Your task to perform on an android device: Search for corsair k70 on newegg.com, select the first entry, add it to the cart, then select checkout. Image 0: 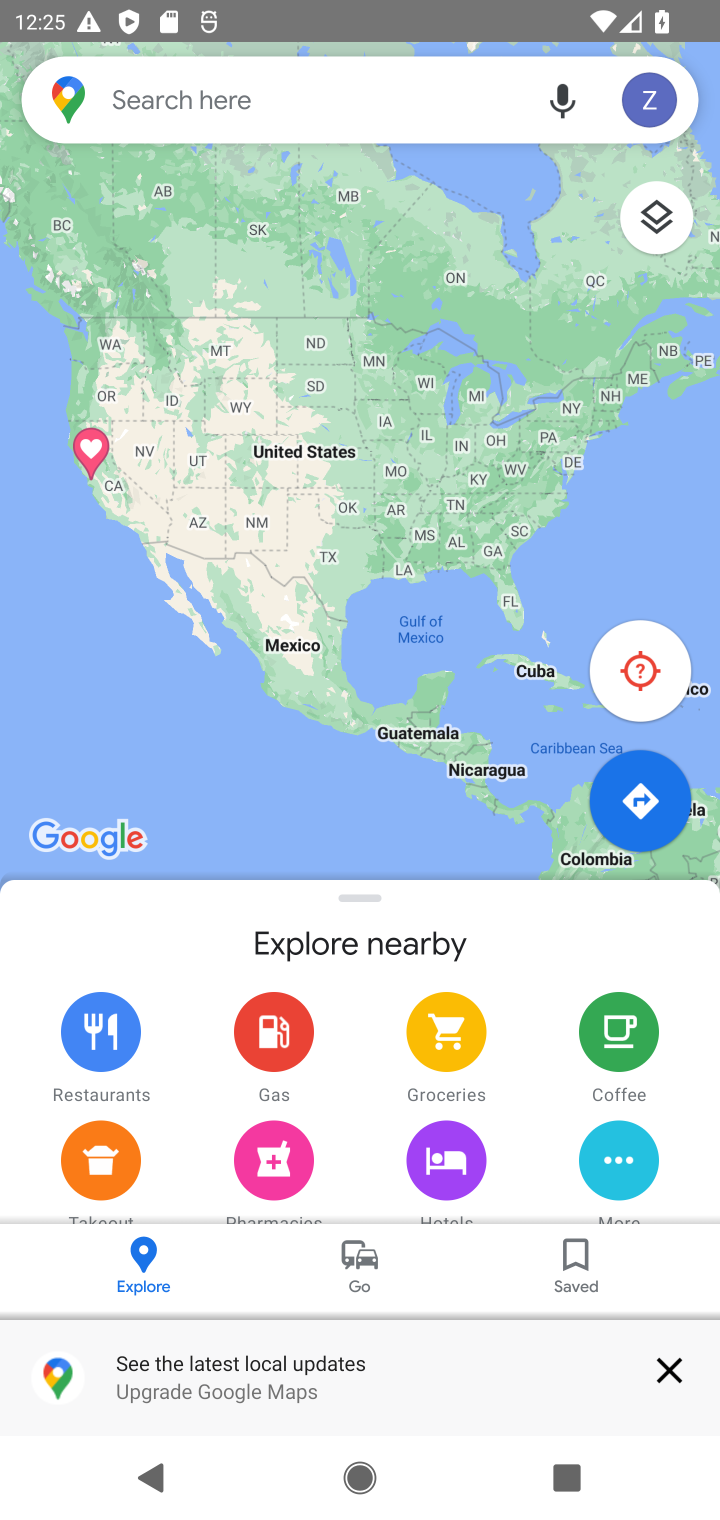
Step 0: press home button
Your task to perform on an android device: Search for corsair k70 on newegg.com, select the first entry, add it to the cart, then select checkout. Image 1: 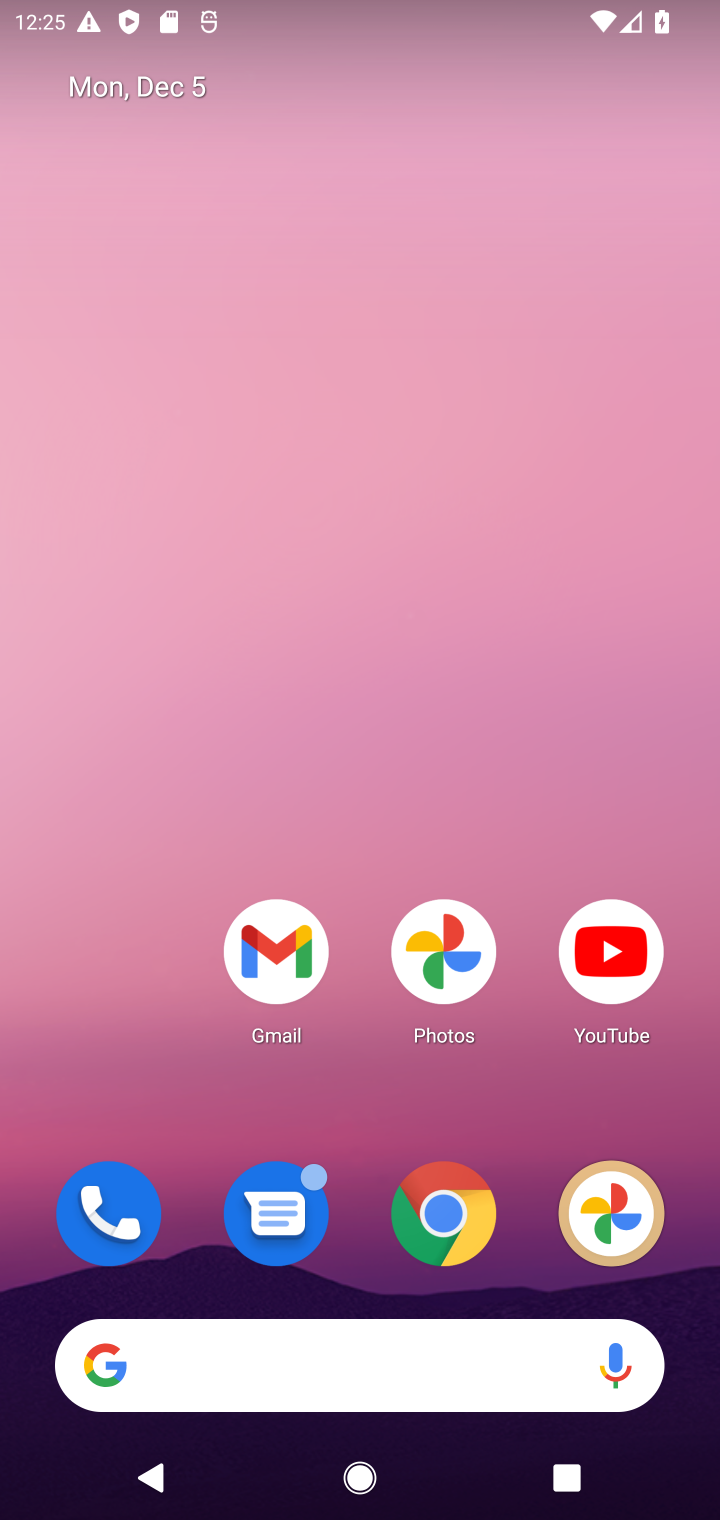
Step 1: click (442, 1229)
Your task to perform on an android device: Search for corsair k70 on newegg.com, select the first entry, add it to the cart, then select checkout. Image 2: 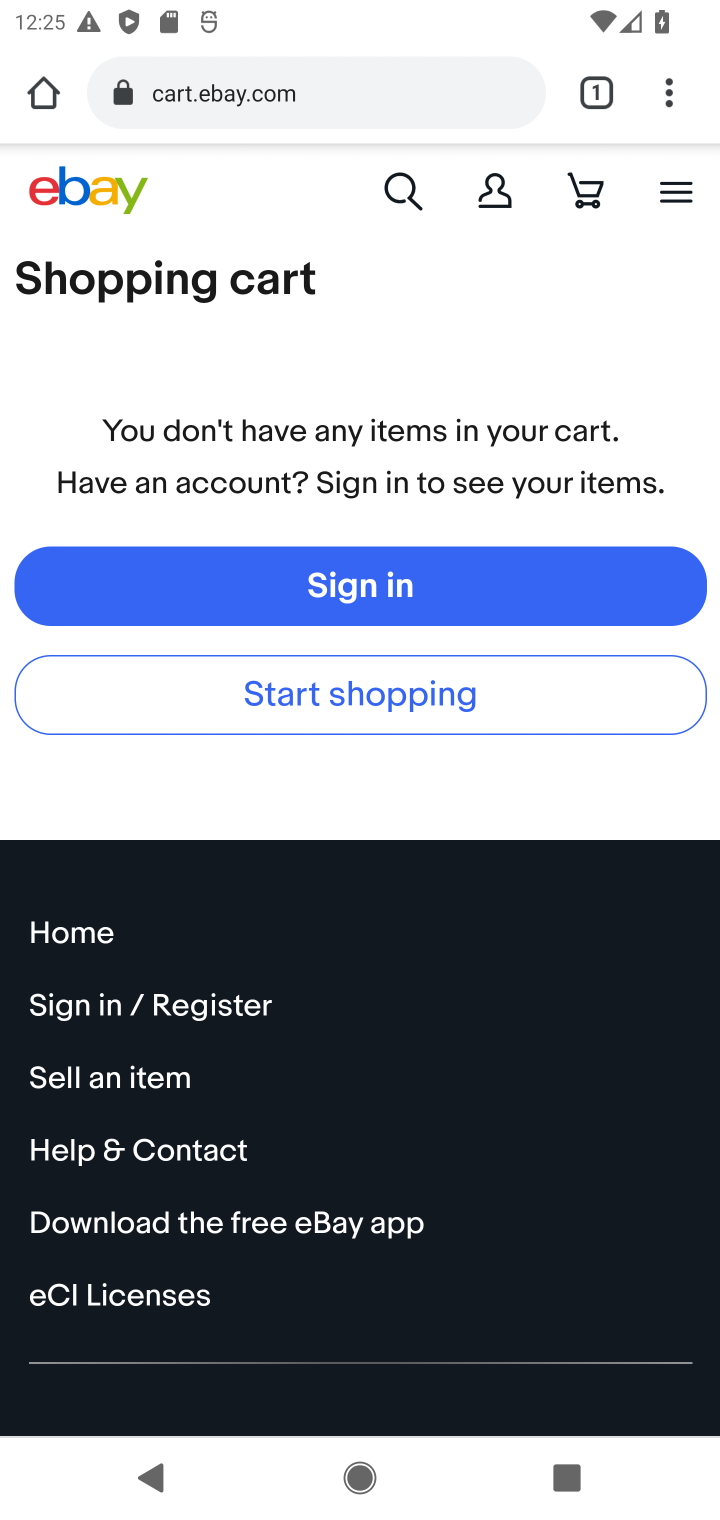
Step 2: click (267, 104)
Your task to perform on an android device: Search for corsair k70 on newegg.com, select the first entry, add it to the cart, then select checkout. Image 3: 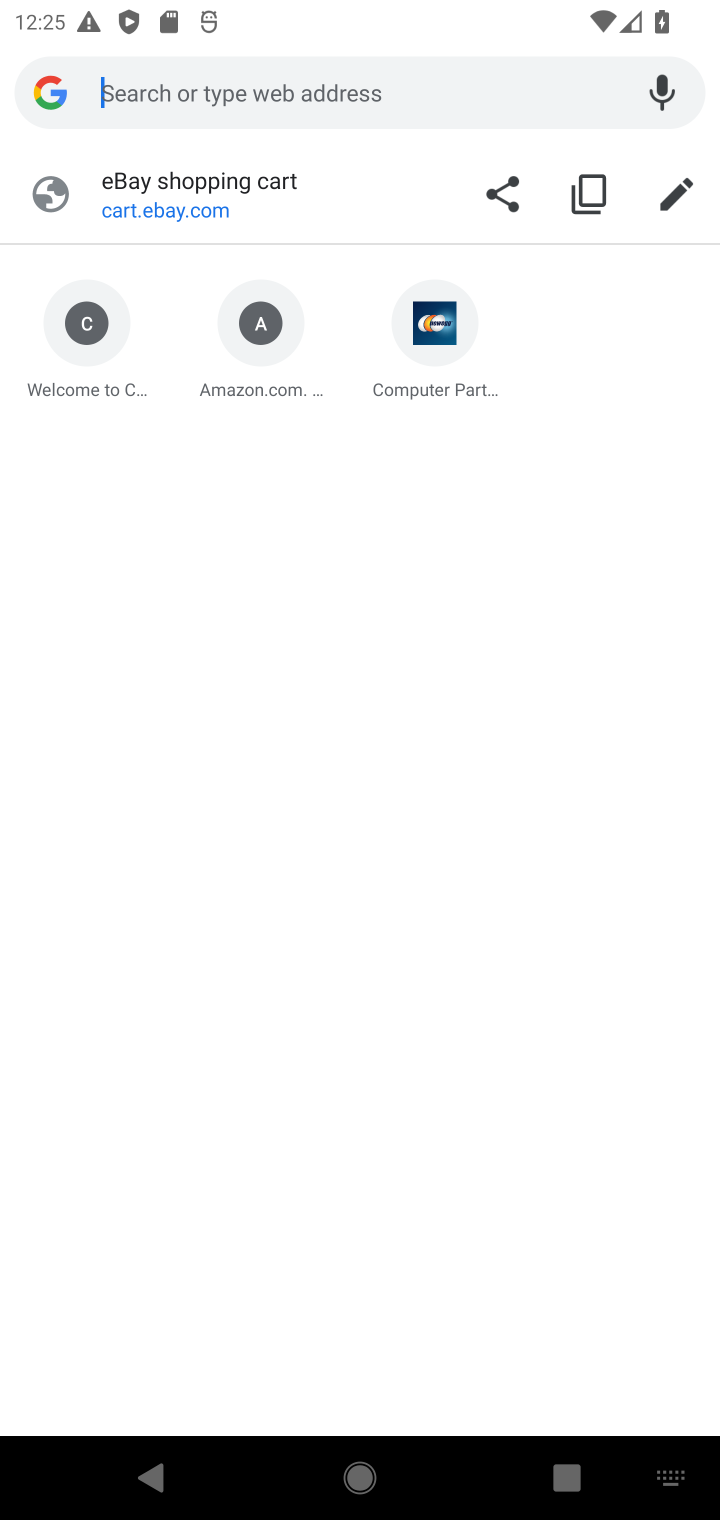
Step 3: click (420, 372)
Your task to perform on an android device: Search for corsair k70 on newegg.com, select the first entry, add it to the cart, then select checkout. Image 4: 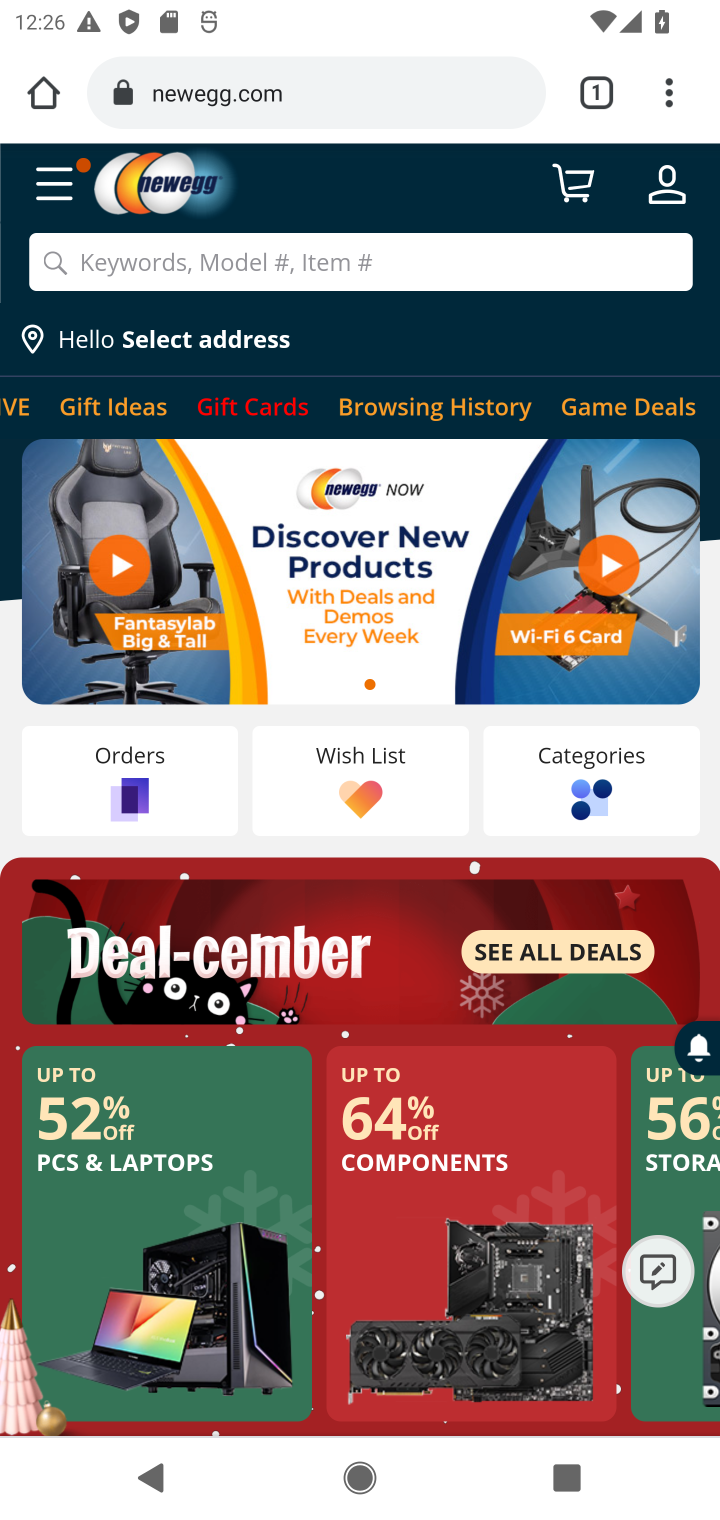
Step 4: click (254, 269)
Your task to perform on an android device: Search for corsair k70 on newegg.com, select the first entry, add it to the cart, then select checkout. Image 5: 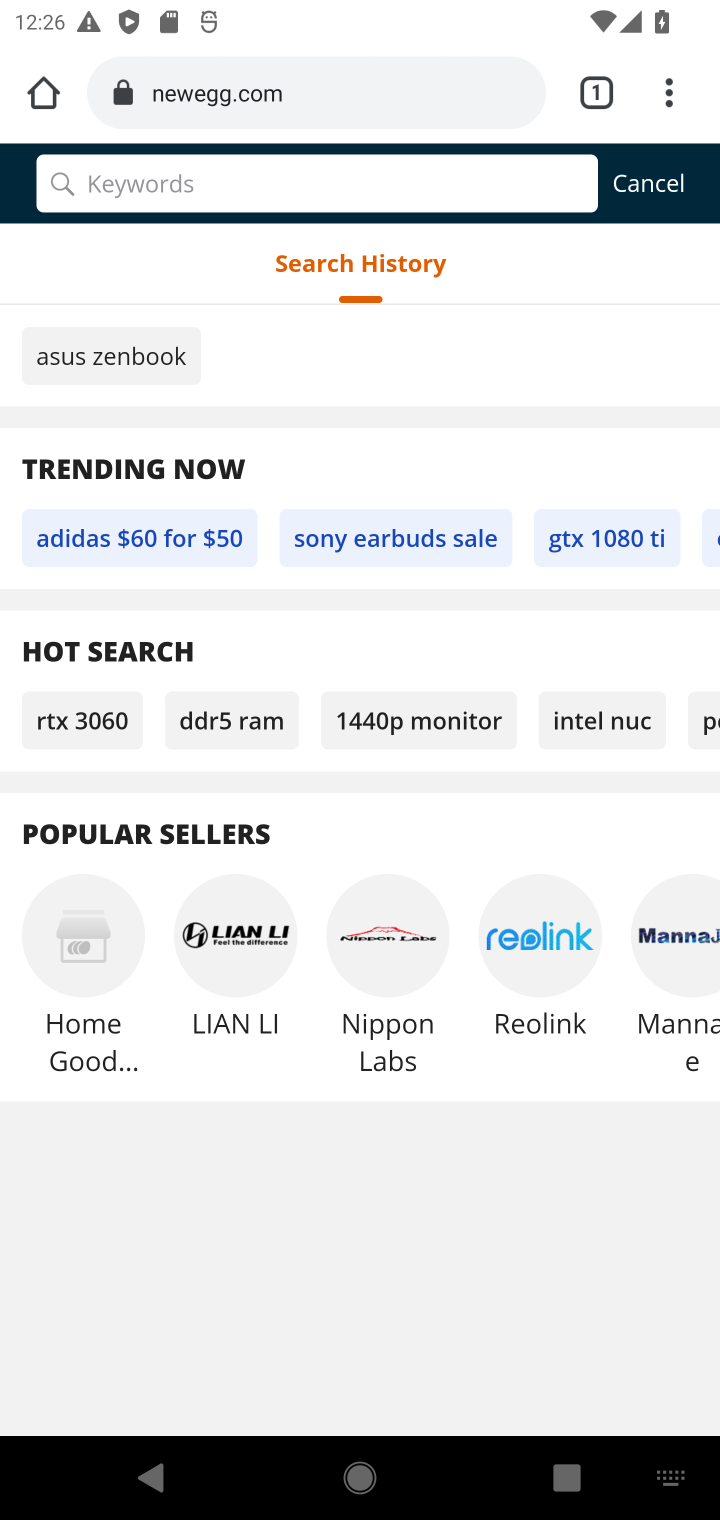
Step 5: type "corsair k70"
Your task to perform on an android device: Search for corsair k70 on newegg.com, select the first entry, add it to the cart, then select checkout. Image 6: 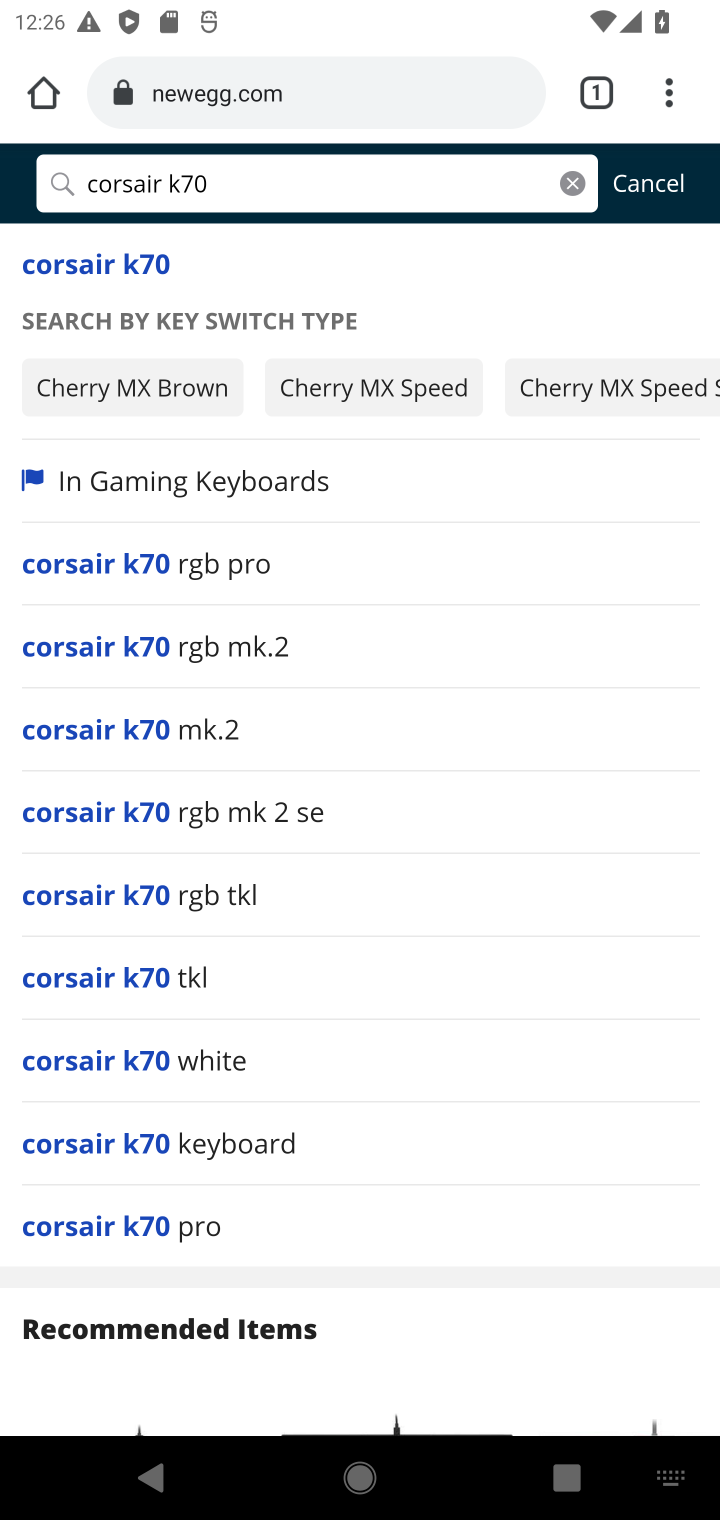
Step 6: click (107, 267)
Your task to perform on an android device: Search for corsair k70 on newegg.com, select the first entry, add it to the cart, then select checkout. Image 7: 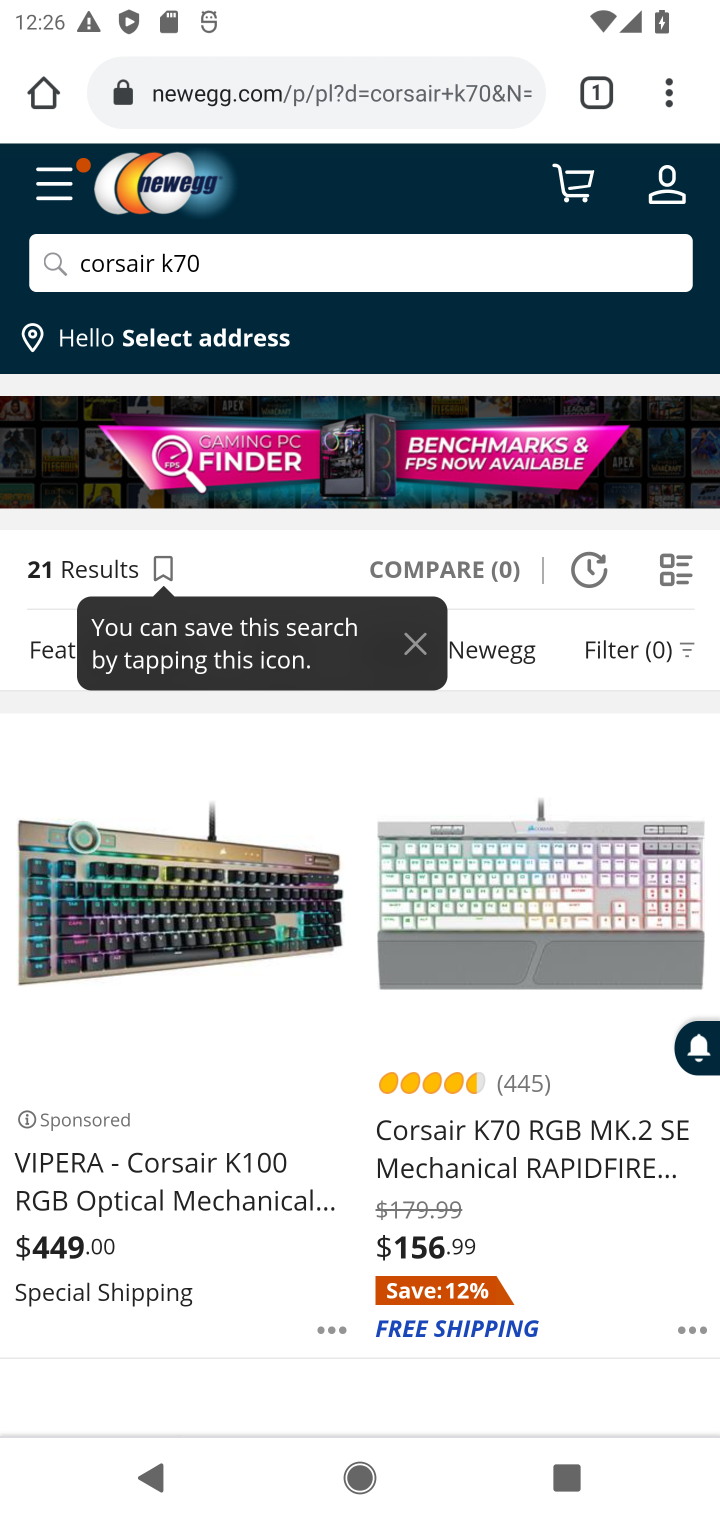
Step 7: task complete